Your task to perform on an android device: turn off javascript in the chrome app Image 0: 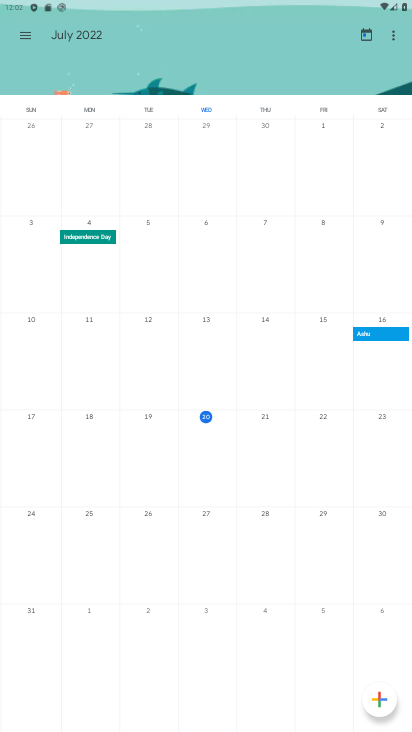
Step 0: press home button
Your task to perform on an android device: turn off javascript in the chrome app Image 1: 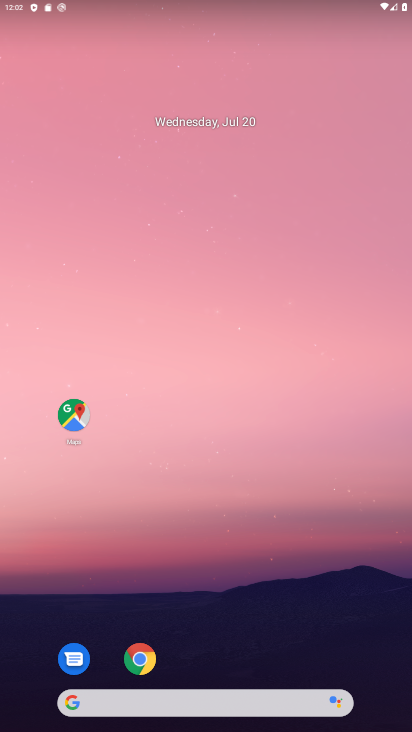
Step 1: task complete